Your task to perform on an android device: open a new tab in the chrome app Image 0: 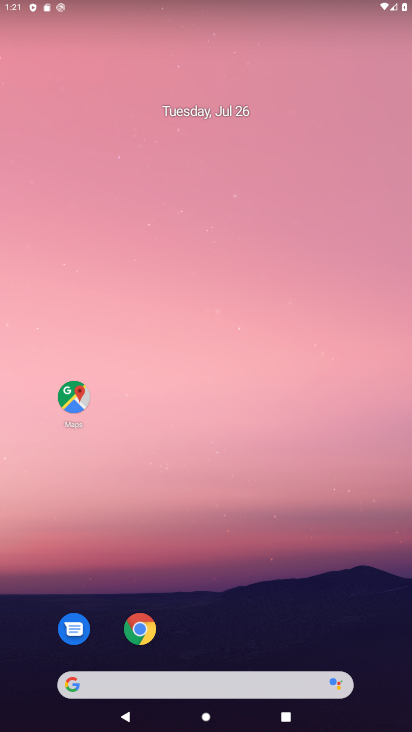
Step 0: drag from (219, 626) to (273, 235)
Your task to perform on an android device: open a new tab in the chrome app Image 1: 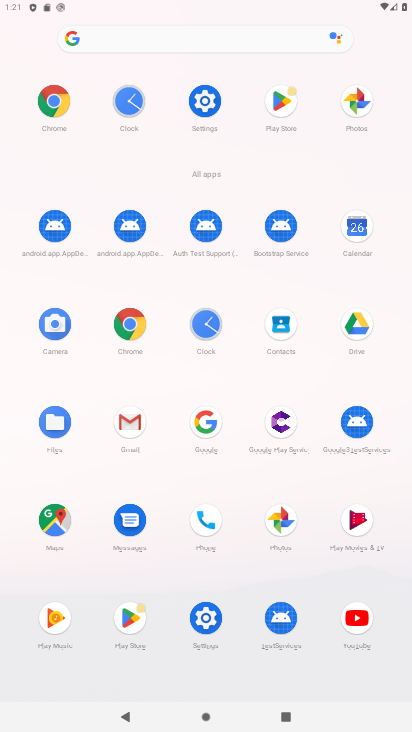
Step 1: click (134, 331)
Your task to perform on an android device: open a new tab in the chrome app Image 2: 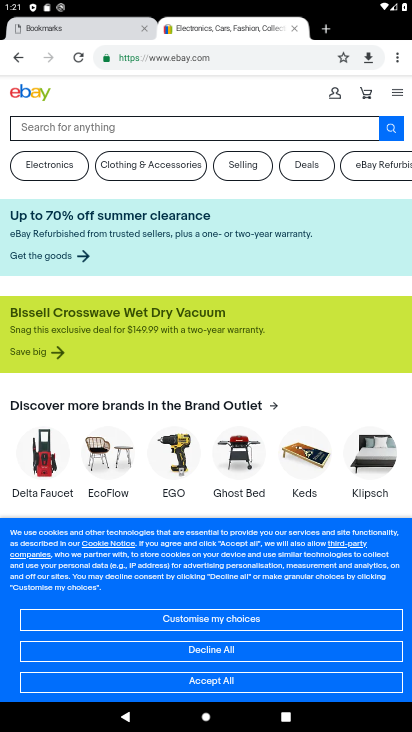
Step 2: press home button
Your task to perform on an android device: open a new tab in the chrome app Image 3: 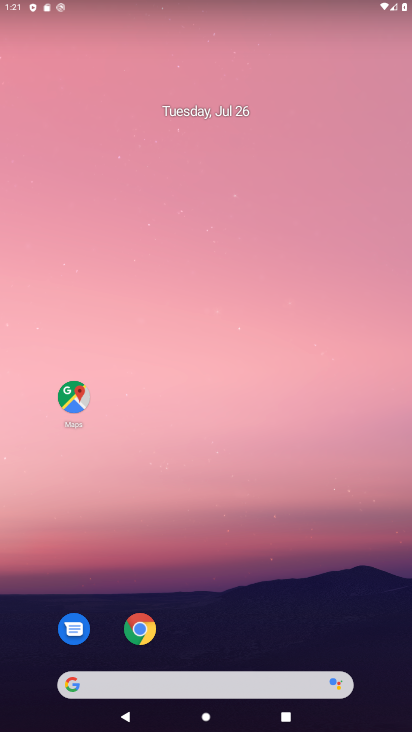
Step 3: drag from (195, 639) to (210, 245)
Your task to perform on an android device: open a new tab in the chrome app Image 4: 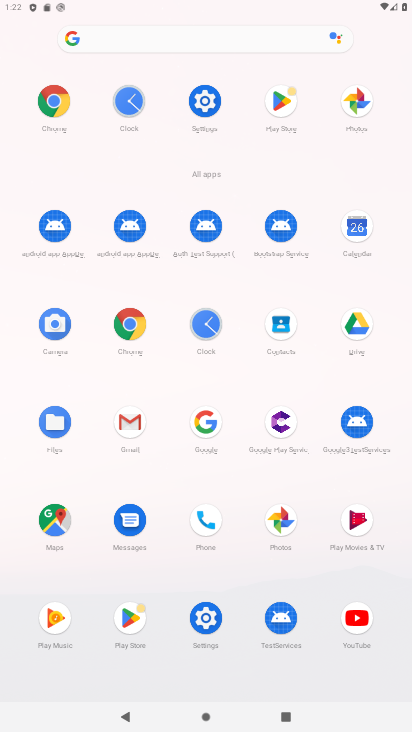
Step 4: click (124, 327)
Your task to perform on an android device: open a new tab in the chrome app Image 5: 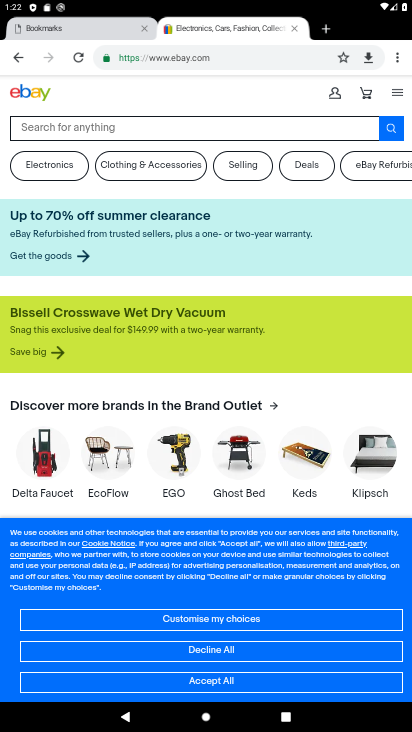
Step 5: task complete